Your task to perform on an android device: Open internet settings Image 0: 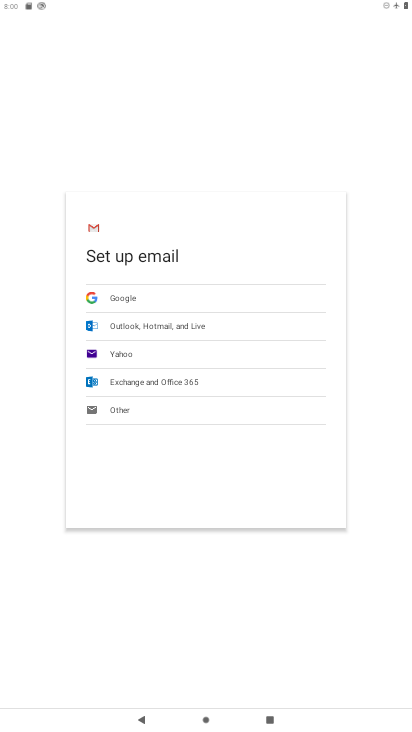
Step 0: press home button
Your task to perform on an android device: Open internet settings Image 1: 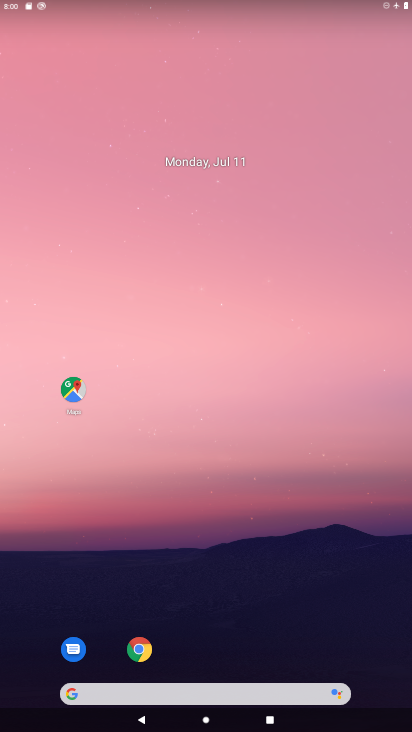
Step 1: drag from (205, 692) to (319, 177)
Your task to perform on an android device: Open internet settings Image 2: 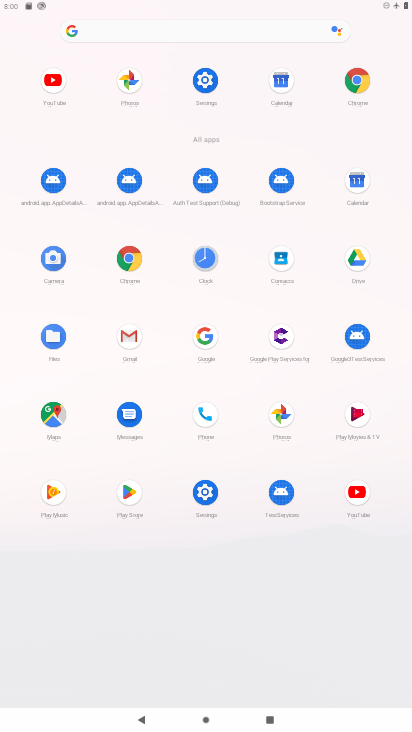
Step 2: click (206, 82)
Your task to perform on an android device: Open internet settings Image 3: 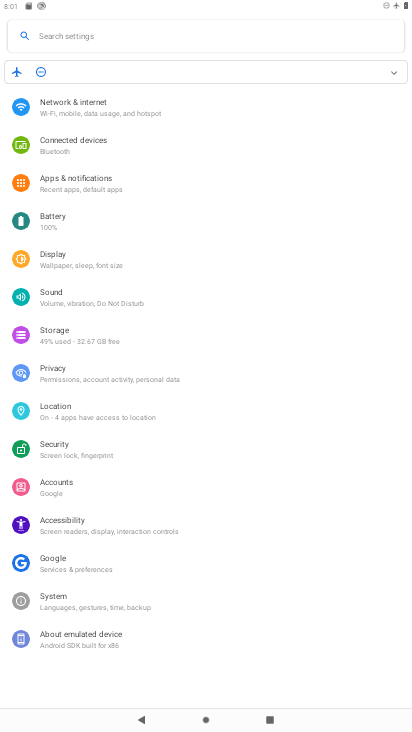
Step 3: click (123, 108)
Your task to perform on an android device: Open internet settings Image 4: 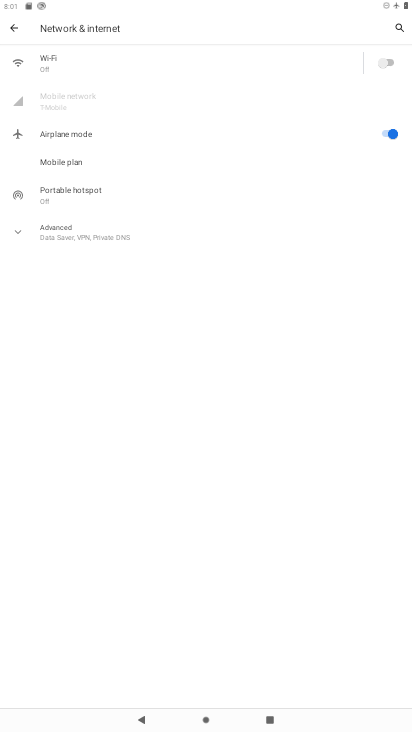
Step 4: task complete